Your task to perform on an android device: Open calendar and show me the first week of next month Image 0: 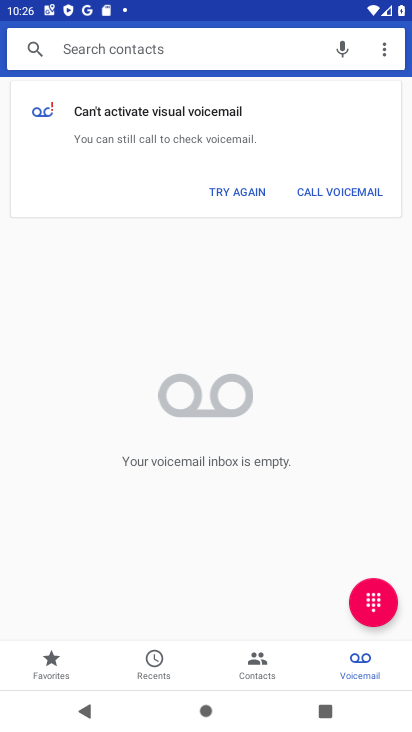
Step 0: press home button
Your task to perform on an android device: Open calendar and show me the first week of next month Image 1: 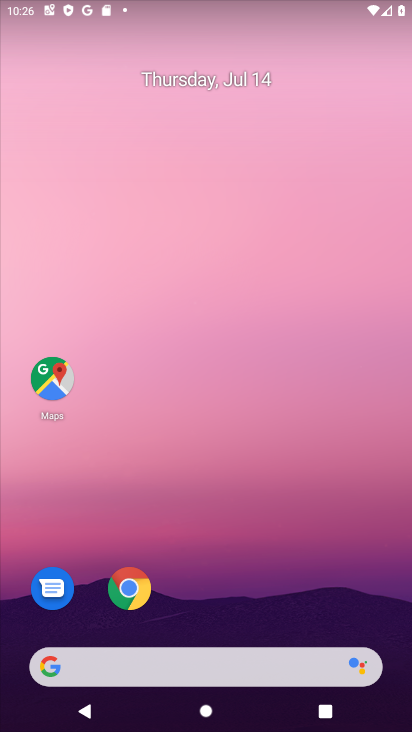
Step 1: drag from (162, 664) to (277, 74)
Your task to perform on an android device: Open calendar and show me the first week of next month Image 2: 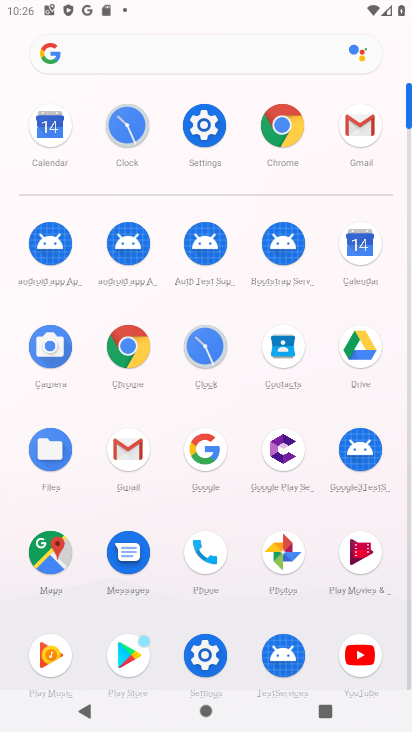
Step 2: click (50, 124)
Your task to perform on an android device: Open calendar and show me the first week of next month Image 3: 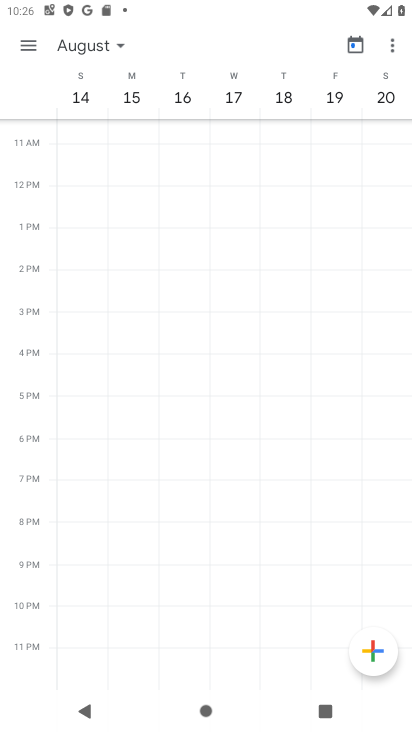
Step 3: click (83, 43)
Your task to perform on an android device: Open calendar and show me the first week of next month Image 4: 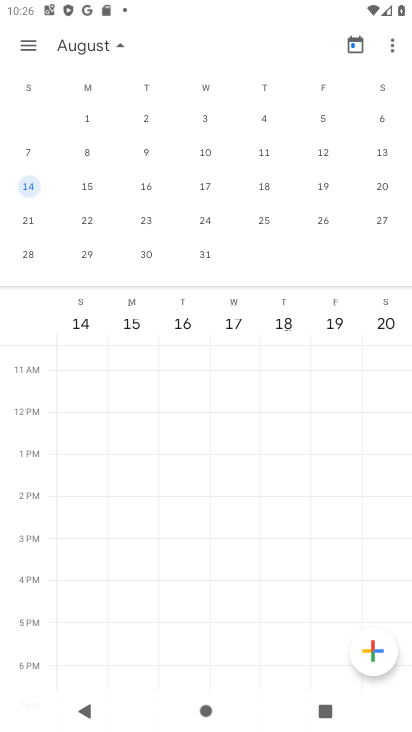
Step 4: click (92, 117)
Your task to perform on an android device: Open calendar and show me the first week of next month Image 5: 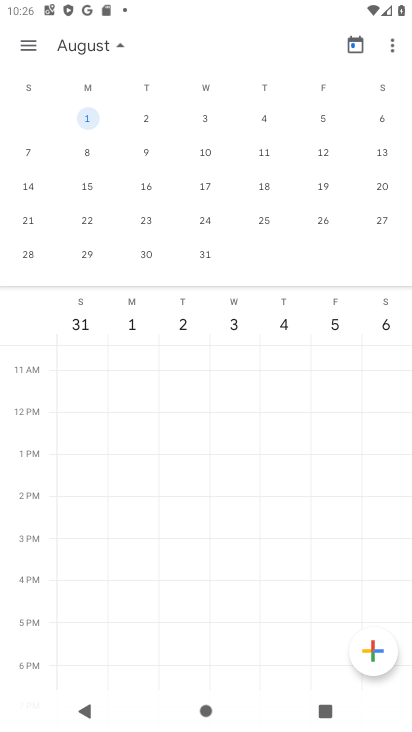
Step 5: click (34, 44)
Your task to perform on an android device: Open calendar and show me the first week of next month Image 6: 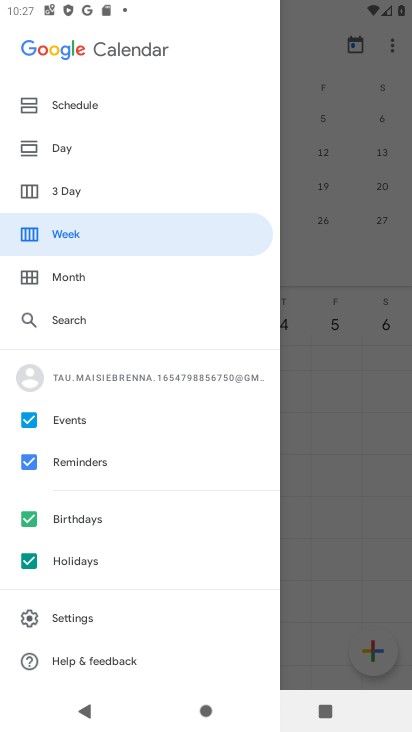
Step 6: click (72, 229)
Your task to perform on an android device: Open calendar and show me the first week of next month Image 7: 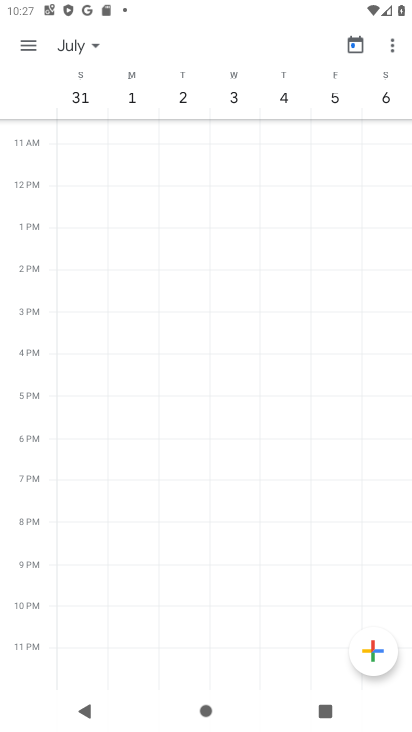
Step 7: task complete